Your task to perform on an android device: choose inbox layout in the gmail app Image 0: 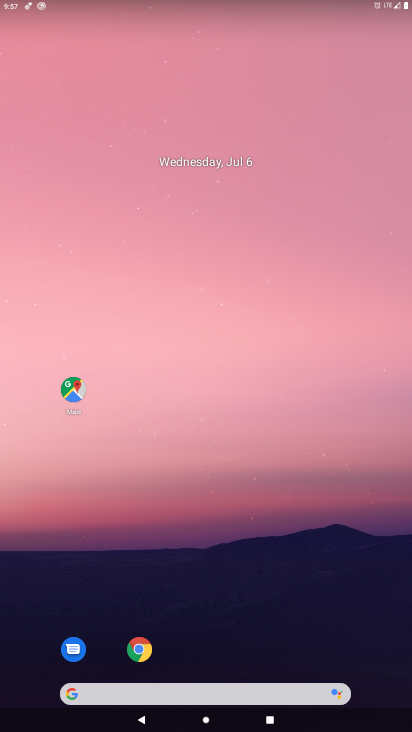
Step 0: drag from (205, 665) to (218, 106)
Your task to perform on an android device: choose inbox layout in the gmail app Image 1: 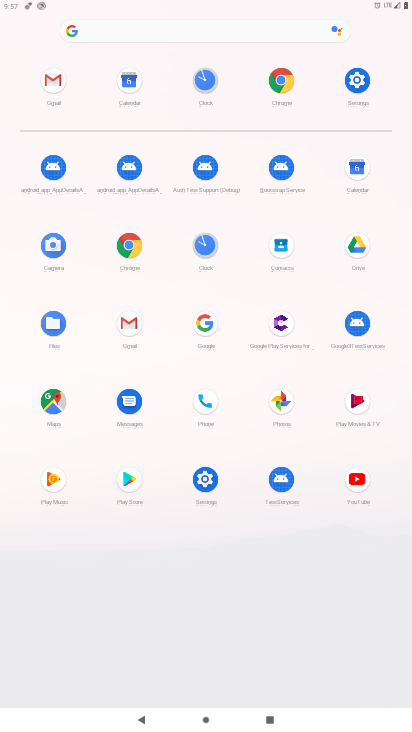
Step 1: click (51, 78)
Your task to perform on an android device: choose inbox layout in the gmail app Image 2: 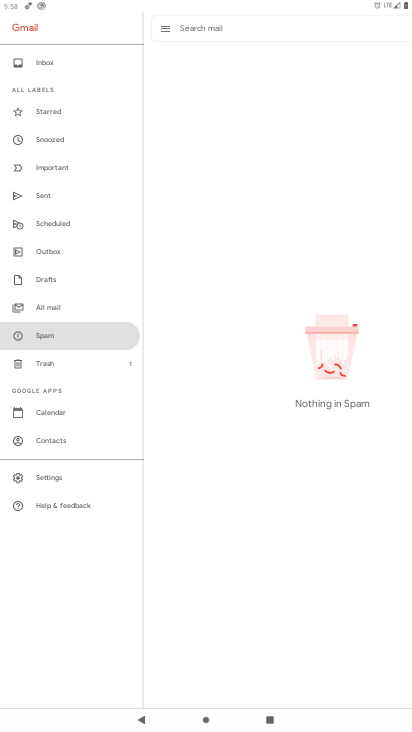
Step 2: click (47, 477)
Your task to perform on an android device: choose inbox layout in the gmail app Image 3: 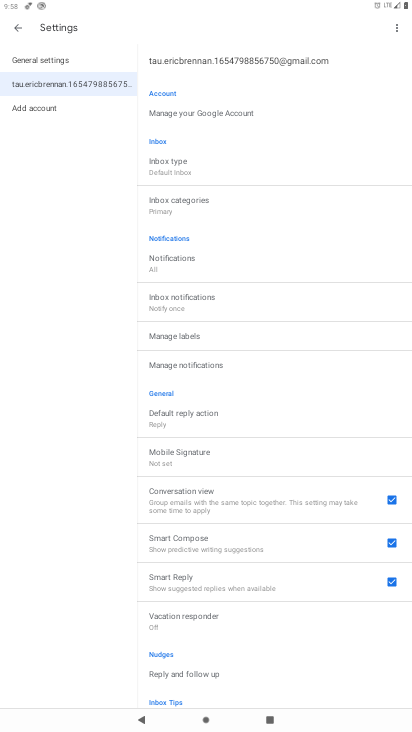
Step 3: click (197, 168)
Your task to perform on an android device: choose inbox layout in the gmail app Image 4: 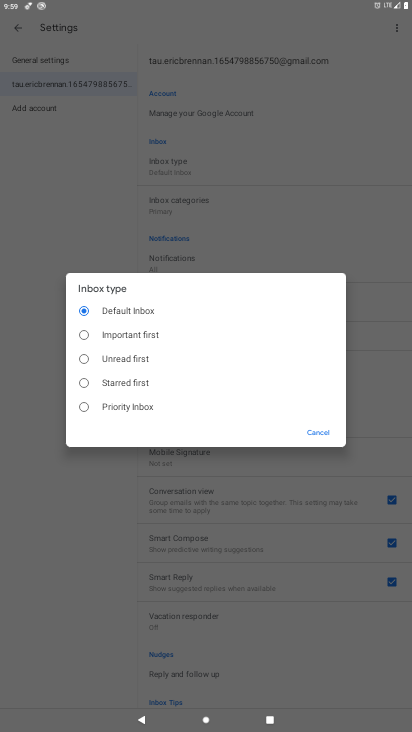
Step 4: click (81, 359)
Your task to perform on an android device: choose inbox layout in the gmail app Image 5: 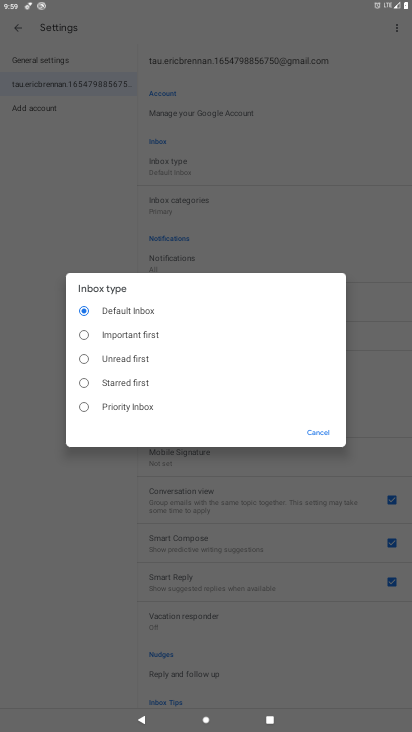
Step 5: task complete